Your task to perform on an android device: add a label to a message in the gmail app Image 0: 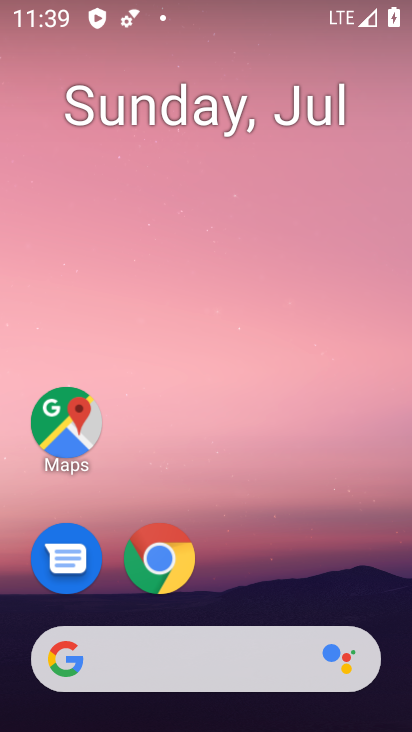
Step 0: drag from (249, 582) to (287, 69)
Your task to perform on an android device: add a label to a message in the gmail app Image 1: 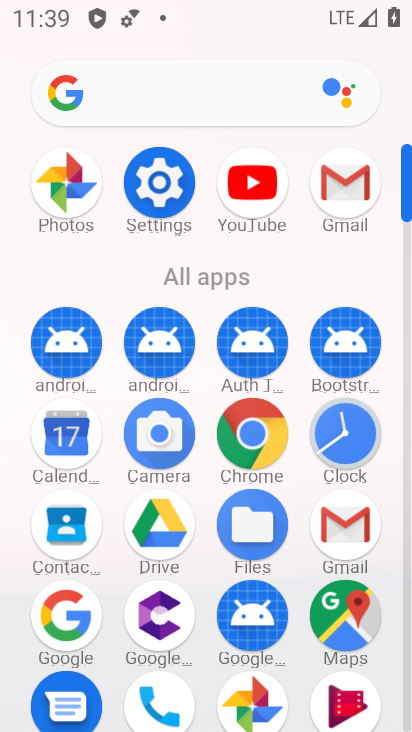
Step 1: click (350, 186)
Your task to perform on an android device: add a label to a message in the gmail app Image 2: 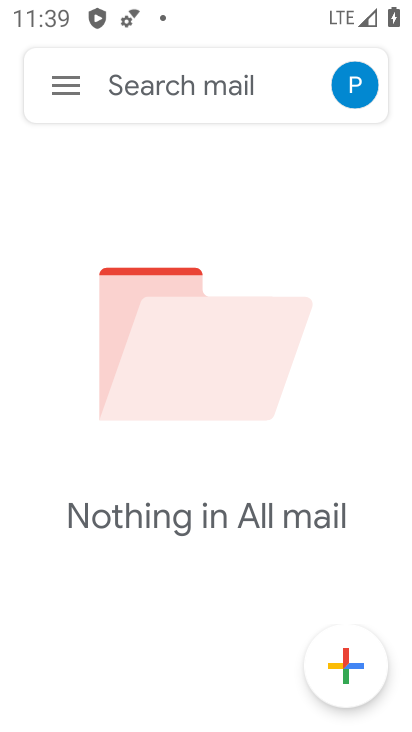
Step 2: click (58, 84)
Your task to perform on an android device: add a label to a message in the gmail app Image 3: 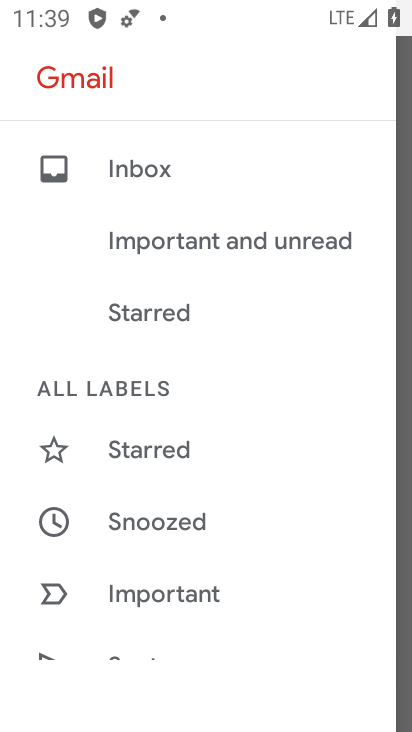
Step 3: drag from (194, 641) to (219, 54)
Your task to perform on an android device: add a label to a message in the gmail app Image 4: 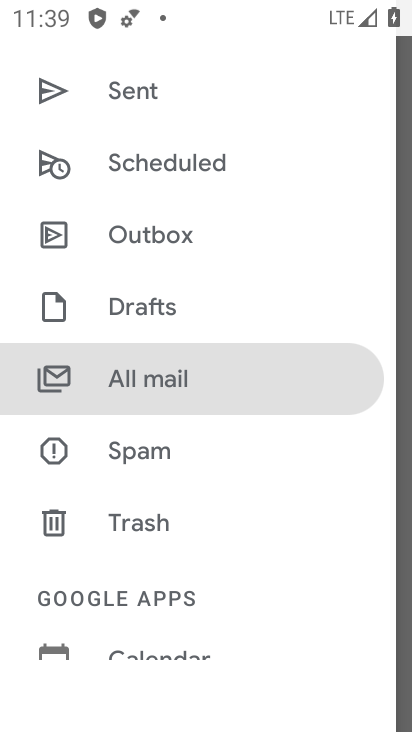
Step 4: click (177, 385)
Your task to perform on an android device: add a label to a message in the gmail app Image 5: 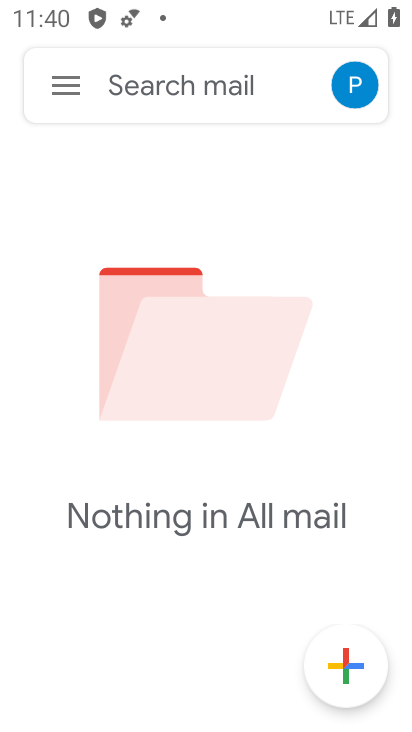
Step 5: task complete